Your task to perform on an android device: Open privacy settings Image 0: 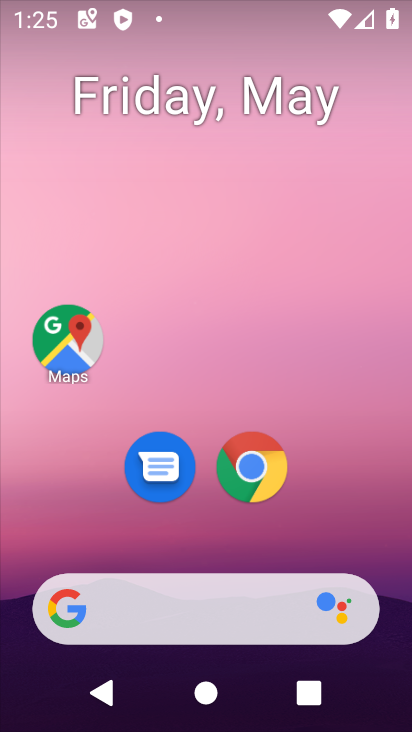
Step 0: drag from (391, 529) to (302, 52)
Your task to perform on an android device: Open privacy settings Image 1: 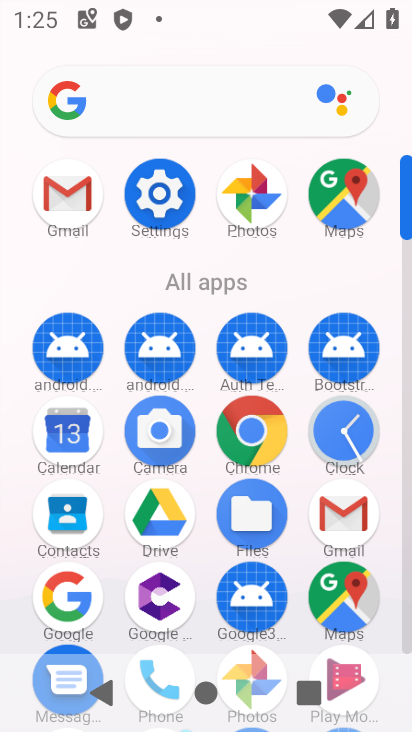
Step 1: click (180, 213)
Your task to perform on an android device: Open privacy settings Image 2: 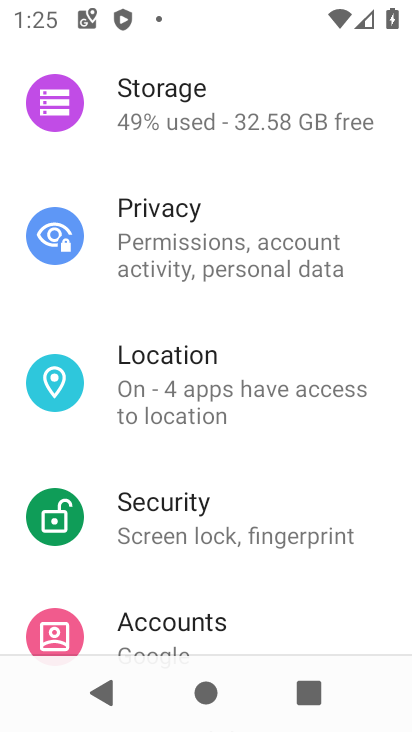
Step 2: click (195, 247)
Your task to perform on an android device: Open privacy settings Image 3: 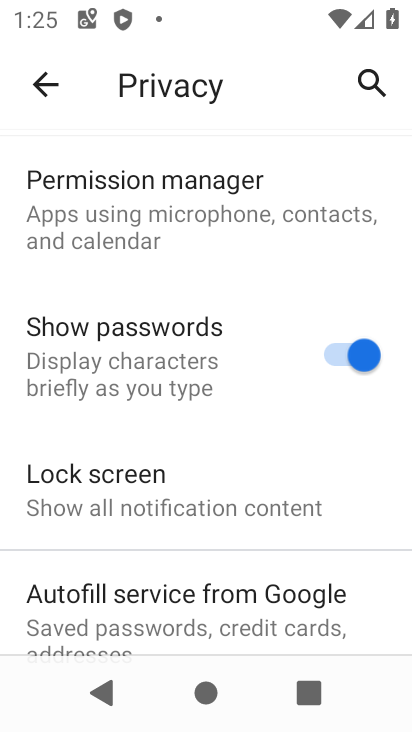
Step 3: task complete